Your task to perform on an android device: manage bookmarks in the chrome app Image 0: 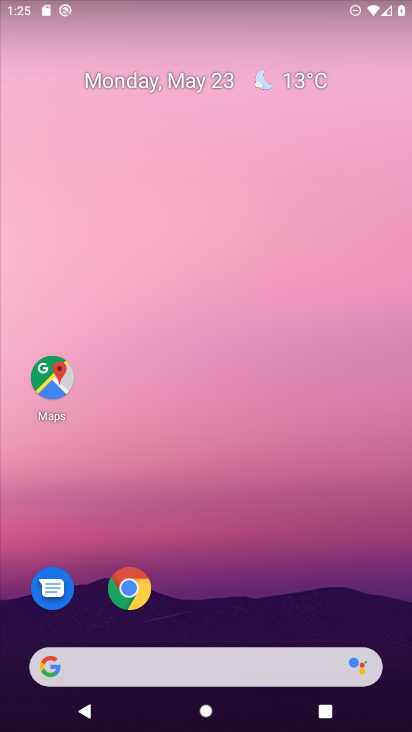
Step 0: click (136, 579)
Your task to perform on an android device: manage bookmarks in the chrome app Image 1: 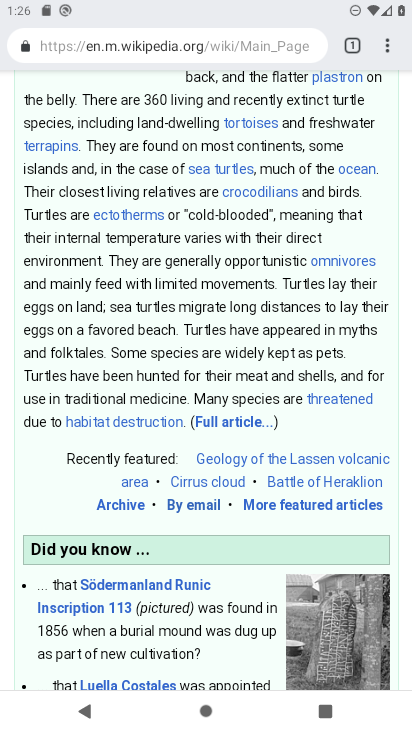
Step 1: click (389, 44)
Your task to perform on an android device: manage bookmarks in the chrome app Image 2: 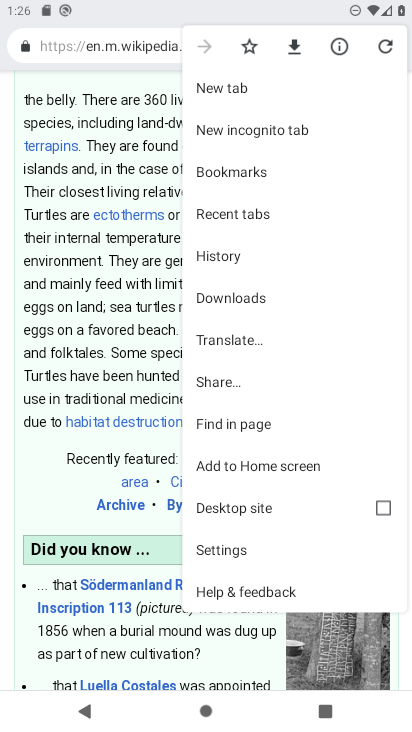
Step 2: click (238, 169)
Your task to perform on an android device: manage bookmarks in the chrome app Image 3: 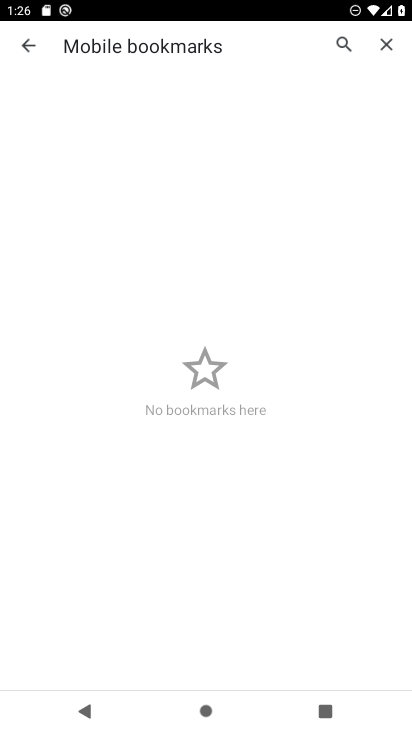
Step 3: task complete